Your task to perform on an android device: Go to Yahoo.com Image 0: 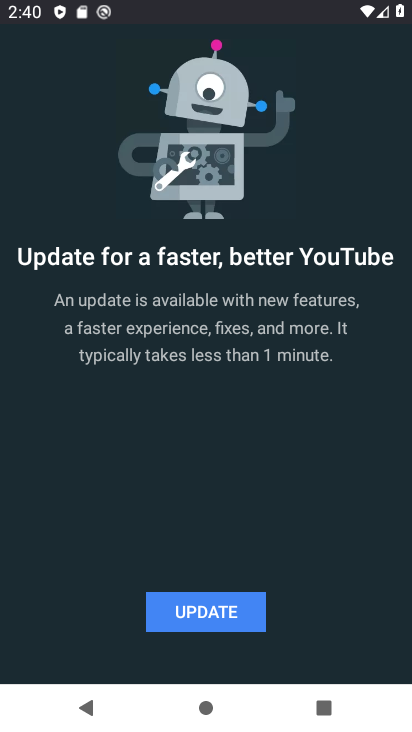
Step 0: press home button
Your task to perform on an android device: Go to Yahoo.com Image 1: 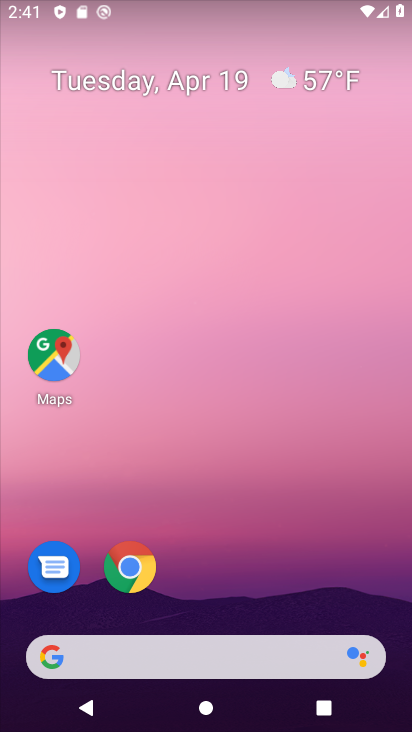
Step 1: drag from (372, 527) to (361, 205)
Your task to perform on an android device: Go to Yahoo.com Image 2: 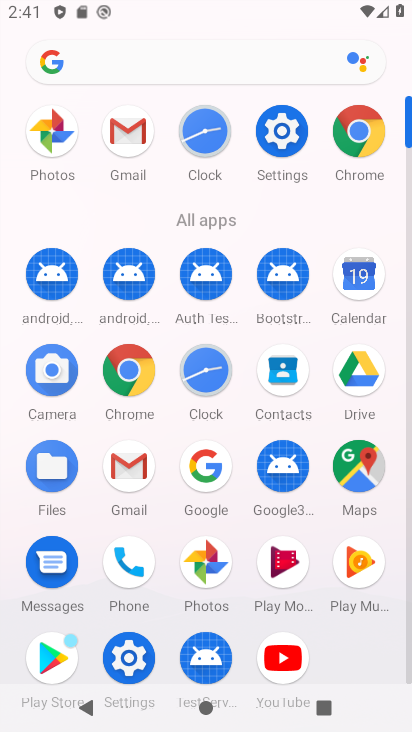
Step 2: click (131, 376)
Your task to perform on an android device: Go to Yahoo.com Image 3: 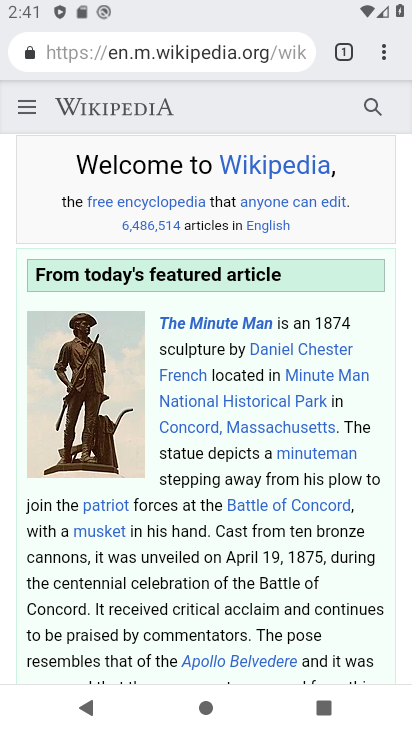
Step 3: press back button
Your task to perform on an android device: Go to Yahoo.com Image 4: 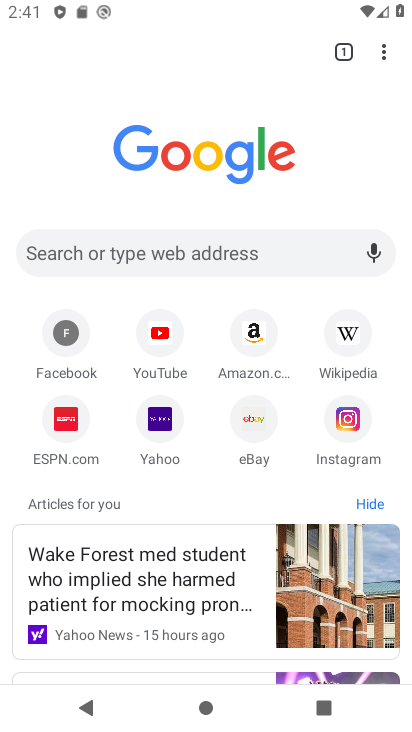
Step 4: click (161, 424)
Your task to perform on an android device: Go to Yahoo.com Image 5: 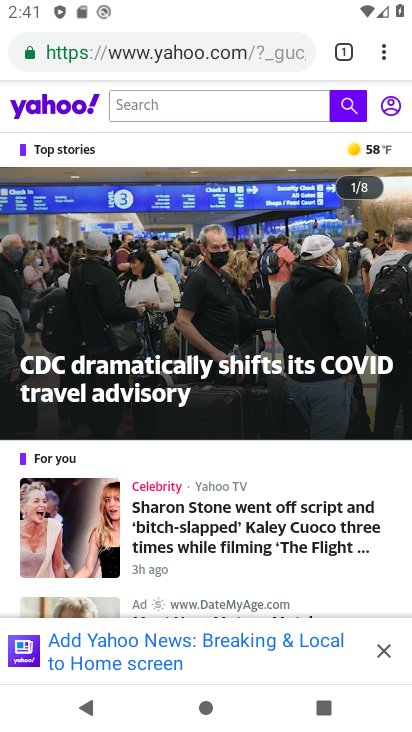
Step 5: task complete